Your task to perform on an android device: Go to Amazon Image 0: 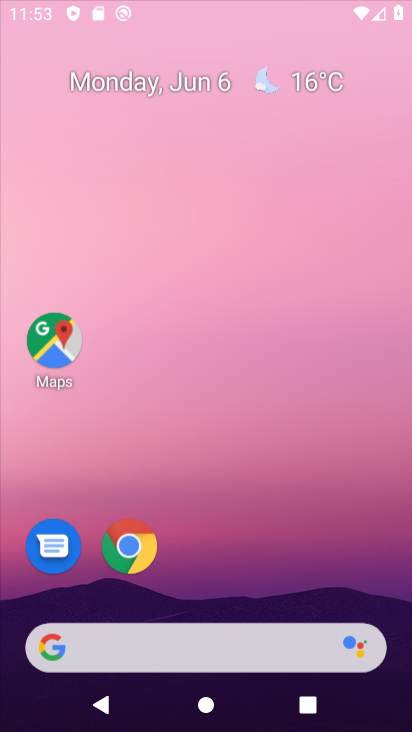
Step 0: drag from (212, 348) to (243, 205)
Your task to perform on an android device: Go to Amazon Image 1: 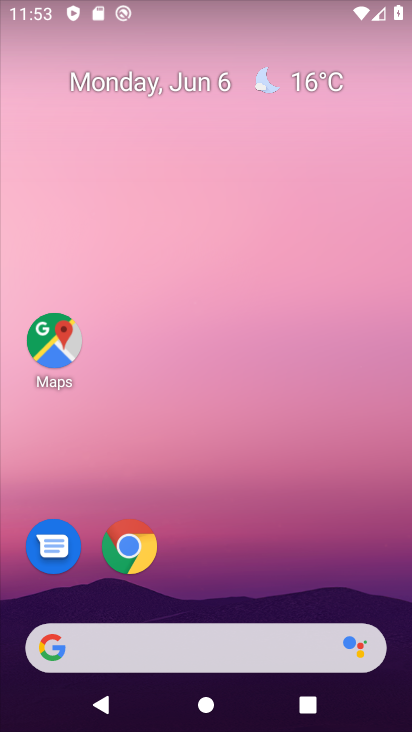
Step 1: drag from (194, 596) to (301, 101)
Your task to perform on an android device: Go to Amazon Image 2: 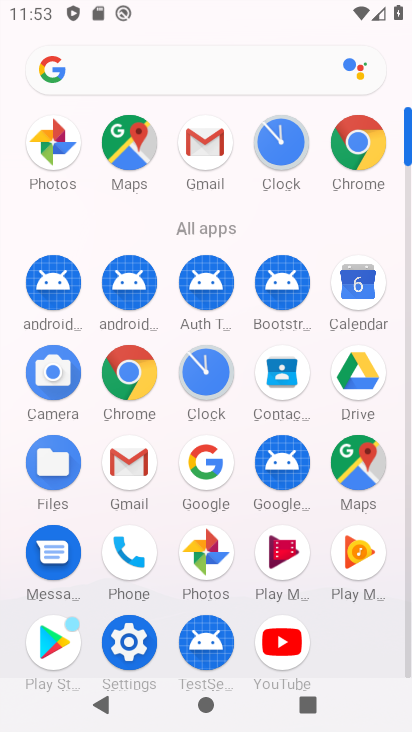
Step 2: click (352, 154)
Your task to perform on an android device: Go to Amazon Image 3: 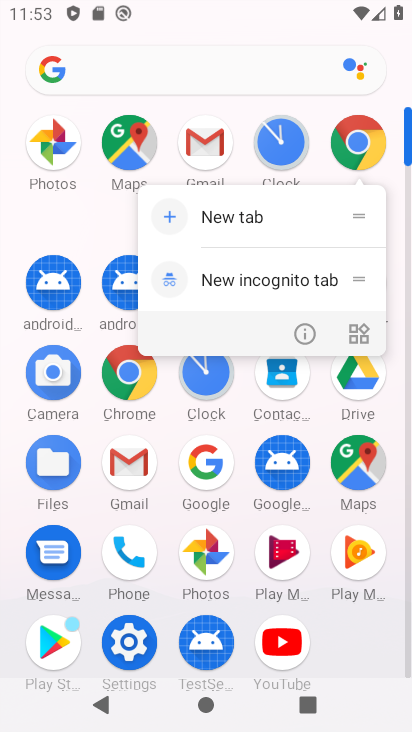
Step 3: click (296, 339)
Your task to perform on an android device: Go to Amazon Image 4: 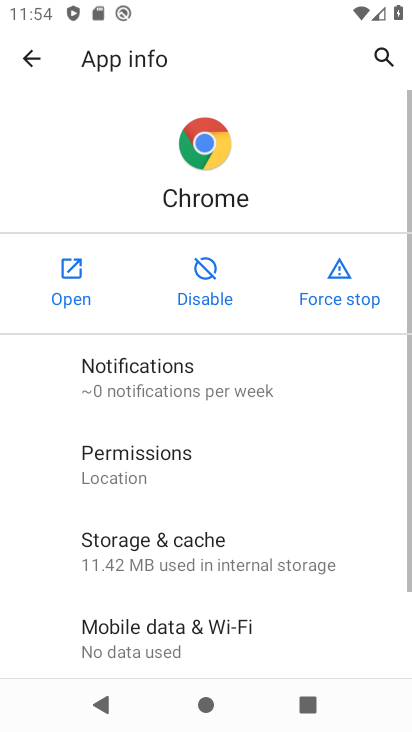
Step 4: click (85, 273)
Your task to perform on an android device: Go to Amazon Image 5: 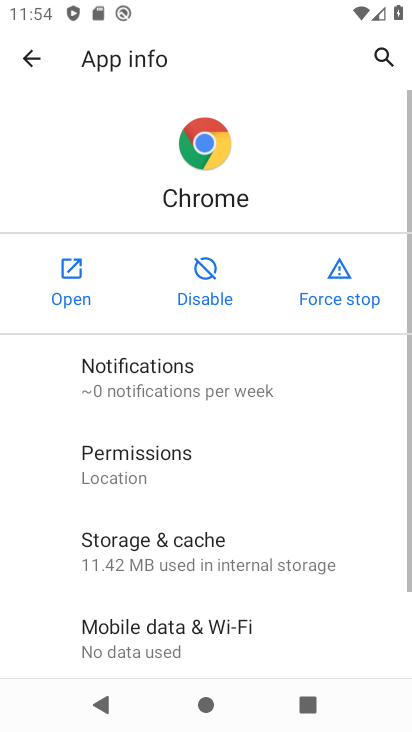
Step 5: click (84, 272)
Your task to perform on an android device: Go to Amazon Image 6: 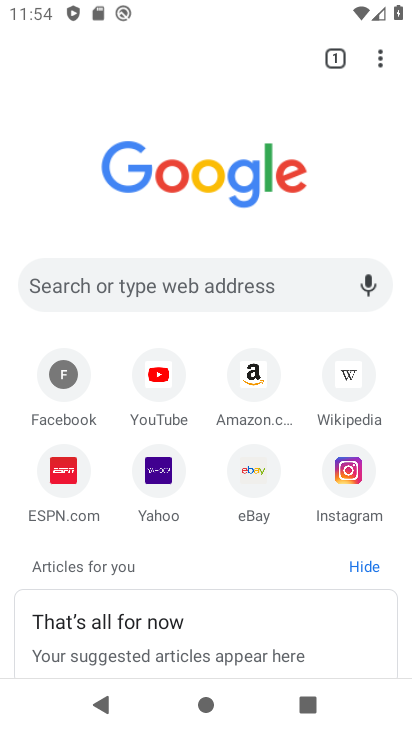
Step 6: click (255, 379)
Your task to perform on an android device: Go to Amazon Image 7: 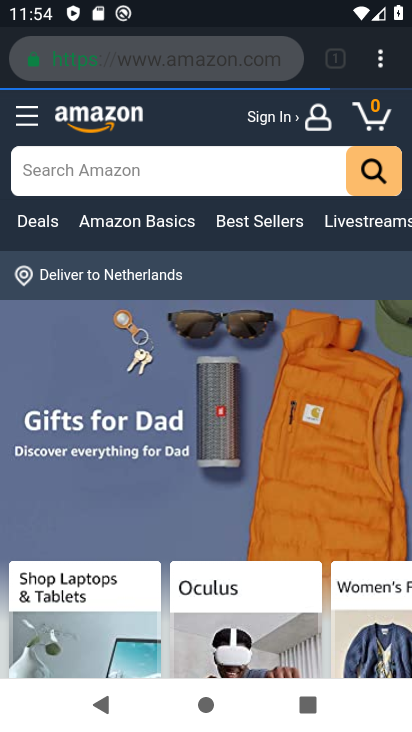
Step 7: task complete